Your task to perform on an android device: open app "TextNow: Call + Text Unlimited" Image 0: 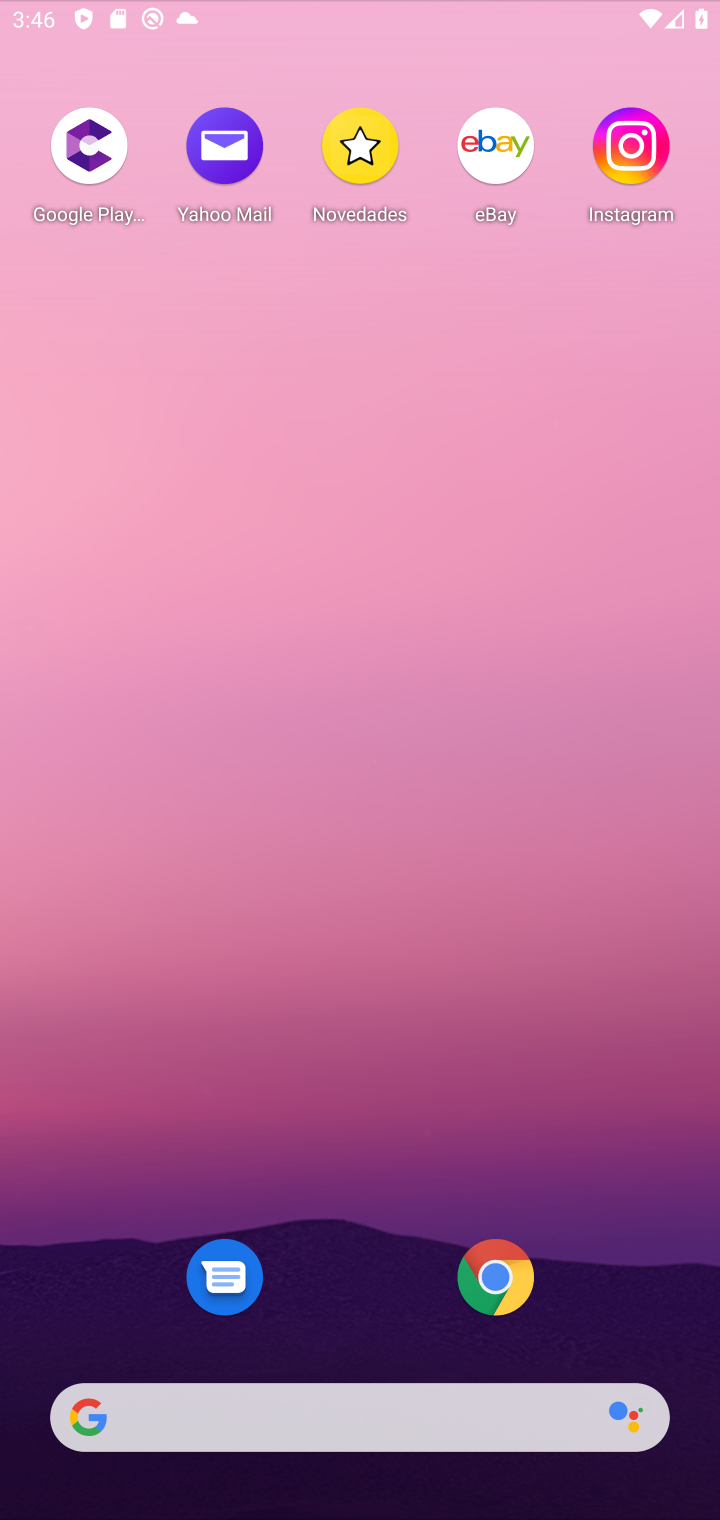
Step 0: press home button
Your task to perform on an android device: open app "TextNow: Call + Text Unlimited" Image 1: 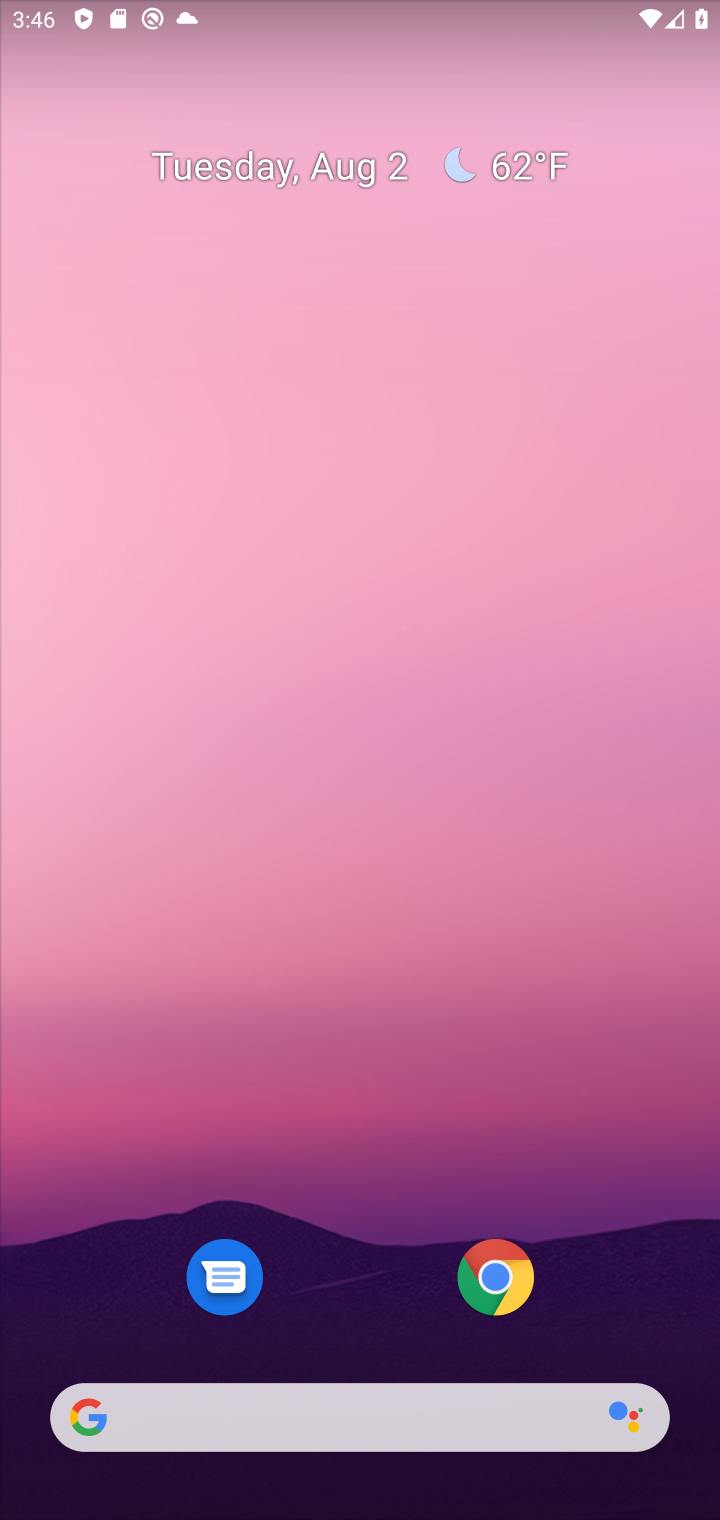
Step 1: drag from (371, 1051) to (414, 169)
Your task to perform on an android device: open app "TextNow: Call + Text Unlimited" Image 2: 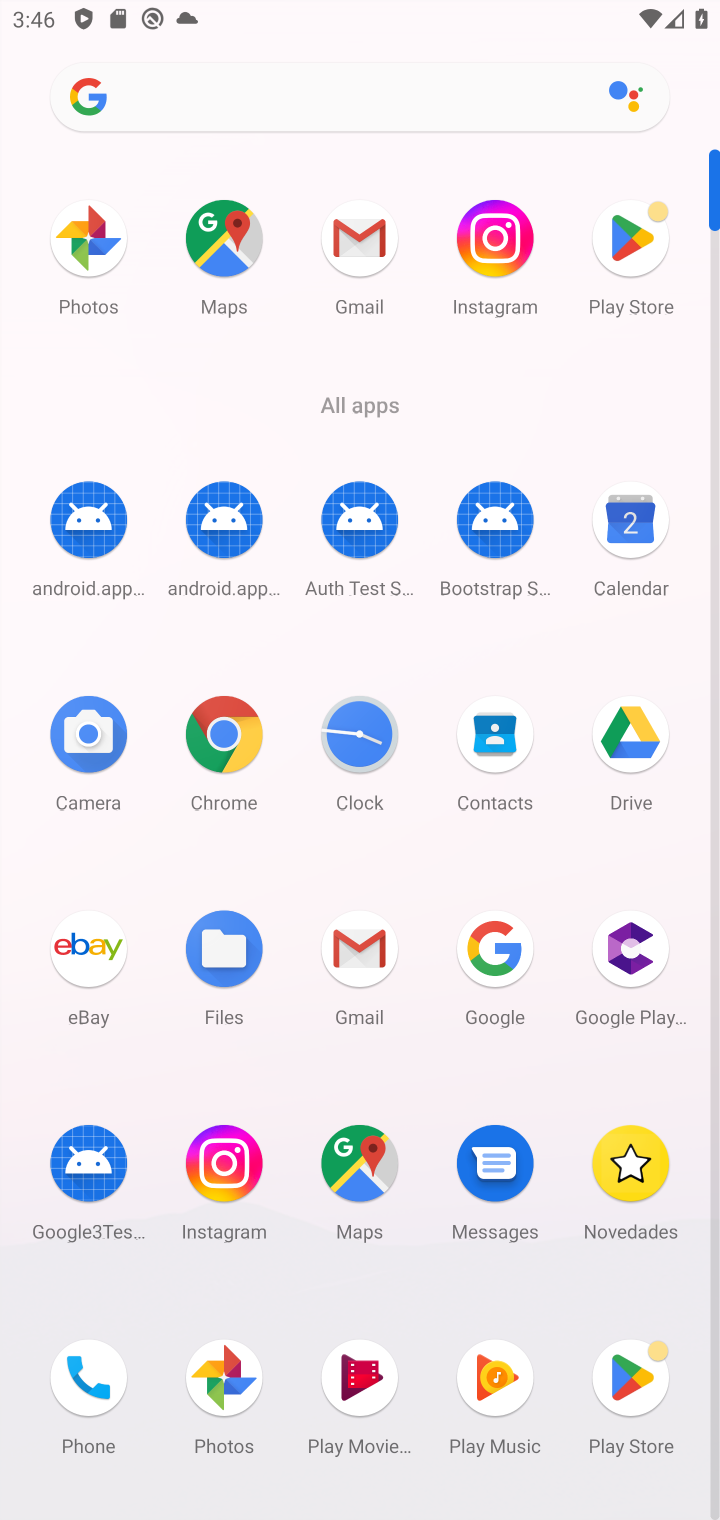
Step 2: drag from (543, 1293) to (544, 925)
Your task to perform on an android device: open app "TextNow: Call + Text Unlimited" Image 3: 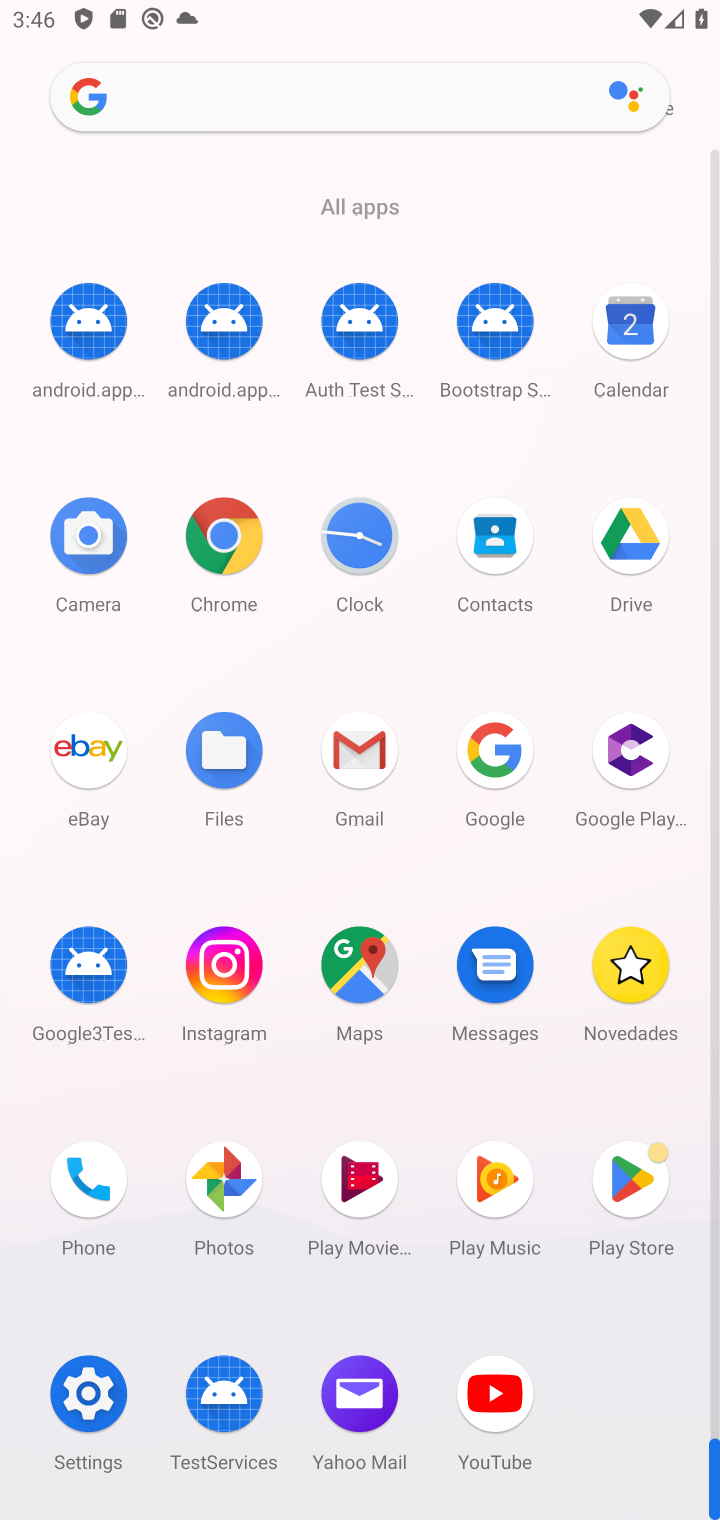
Step 3: click (626, 1182)
Your task to perform on an android device: open app "TextNow: Call + Text Unlimited" Image 4: 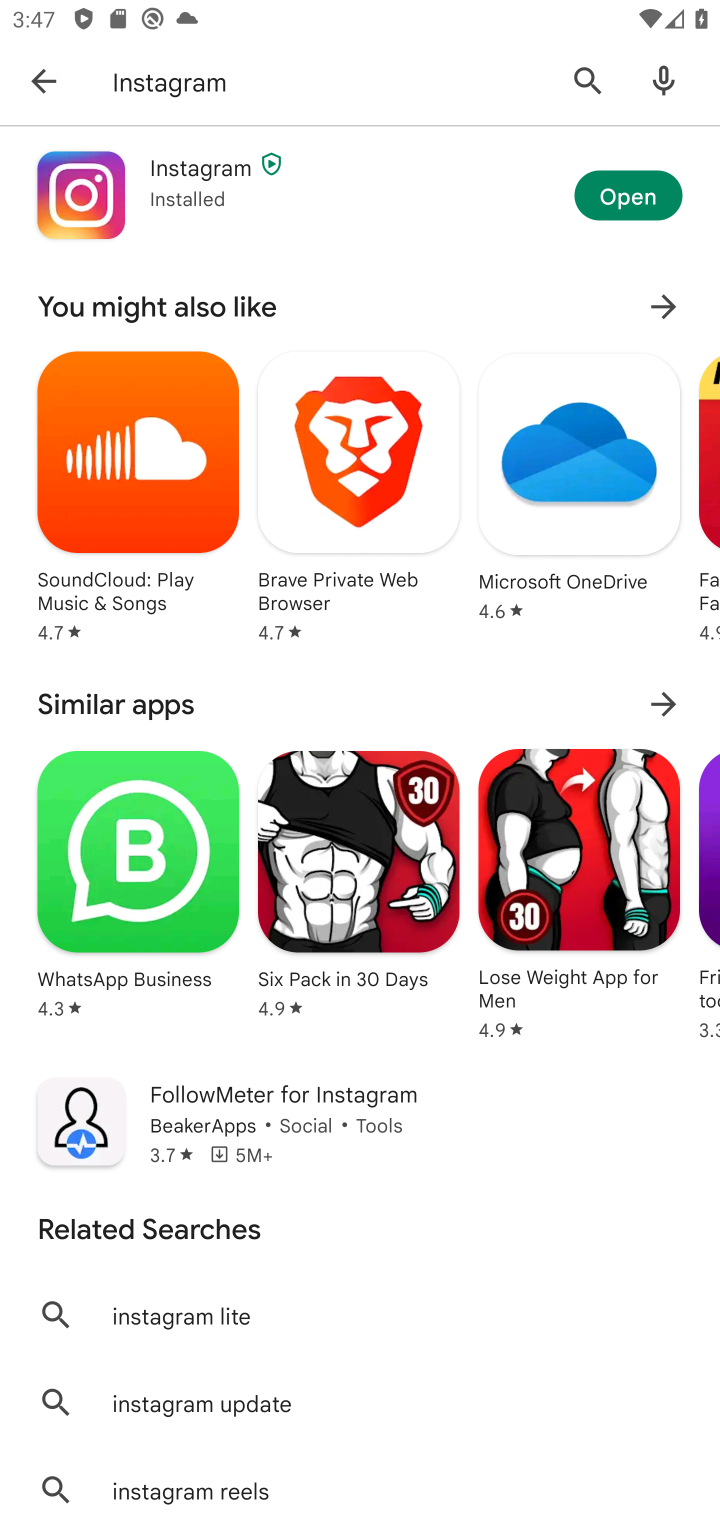
Step 4: click (445, 77)
Your task to perform on an android device: open app "TextNow: Call + Text Unlimited" Image 5: 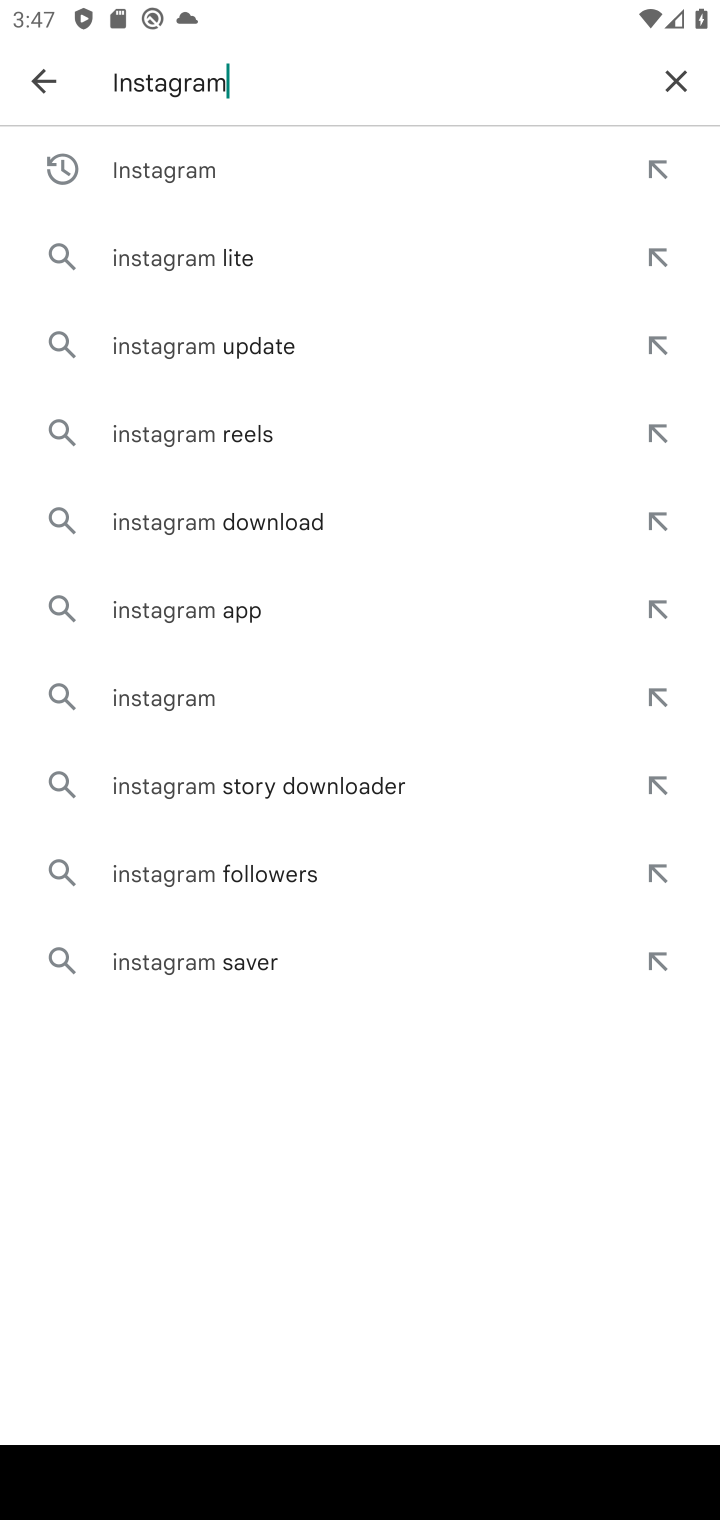
Step 5: click (666, 88)
Your task to perform on an android device: open app "TextNow: Call + Text Unlimited" Image 6: 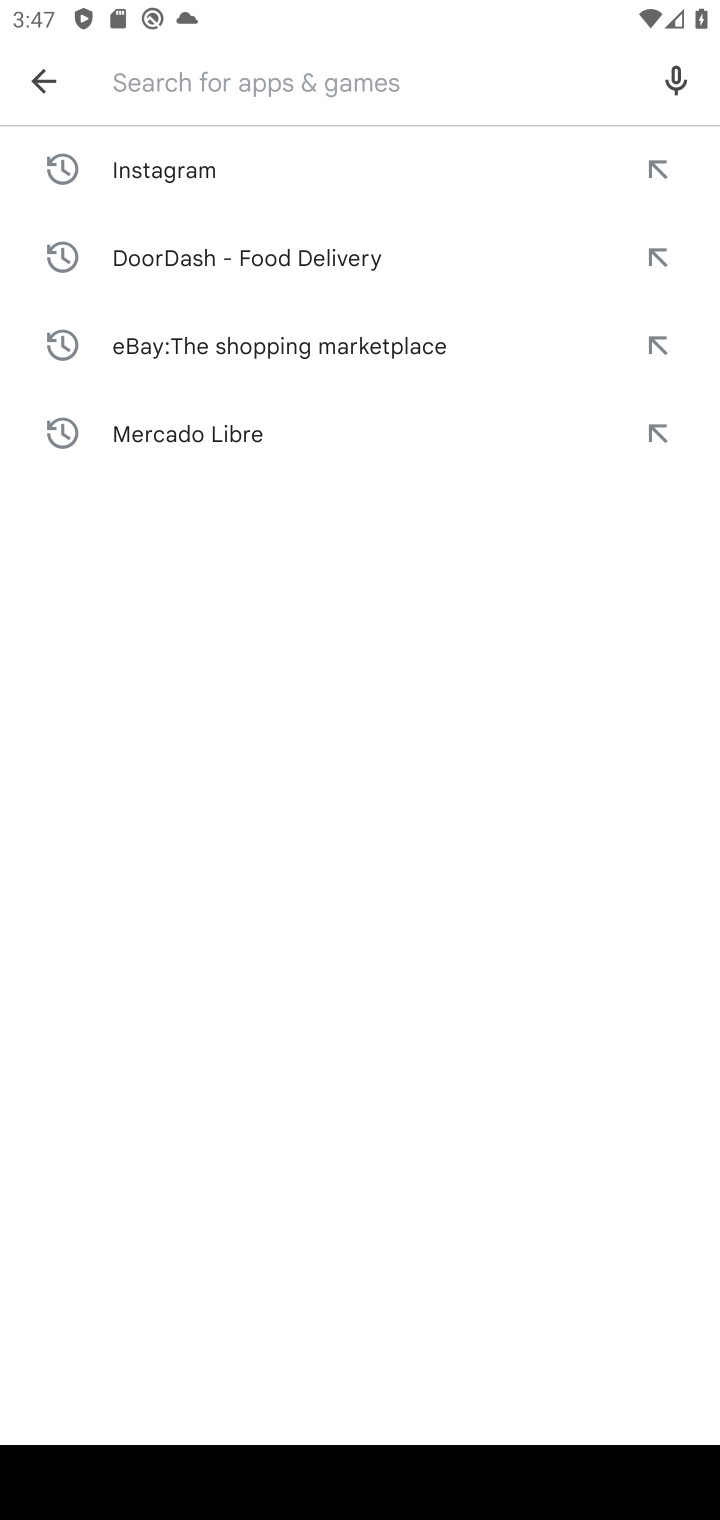
Step 6: type "TextNow: Call + Text Unlimited"
Your task to perform on an android device: open app "TextNow: Call + Text Unlimited" Image 7: 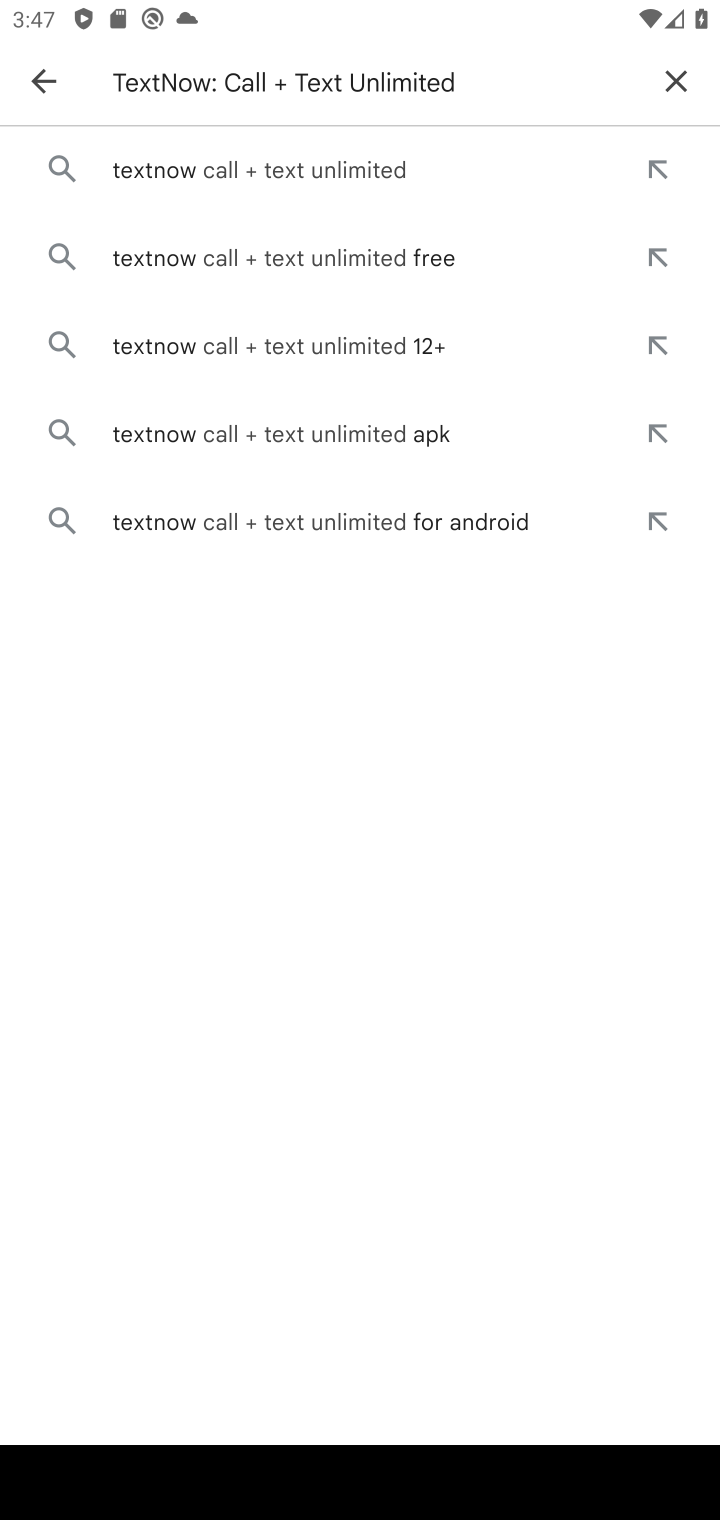
Step 7: press enter
Your task to perform on an android device: open app "TextNow: Call + Text Unlimited" Image 8: 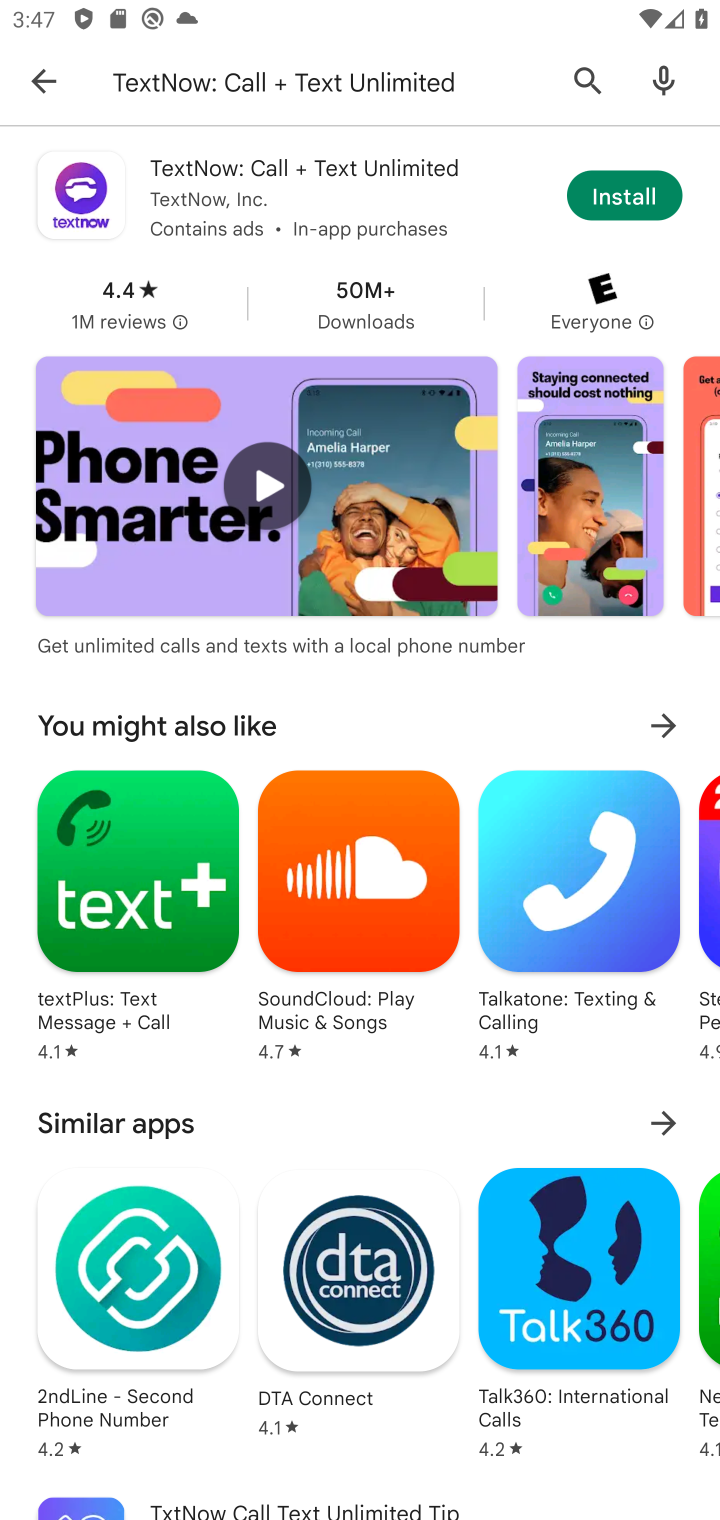
Step 8: task complete